Your task to perform on an android device: change notifications settings Image 0: 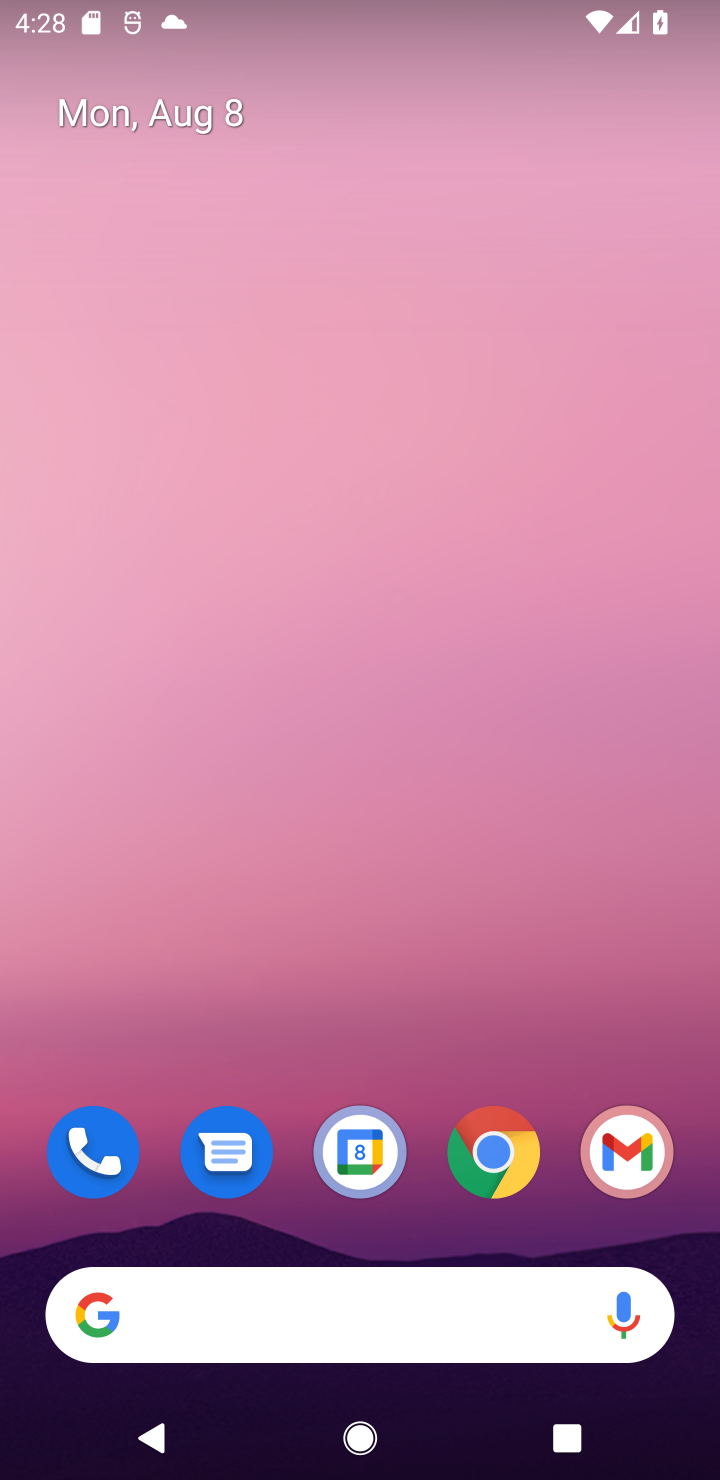
Step 0: drag from (295, 1121) to (323, 76)
Your task to perform on an android device: change notifications settings Image 1: 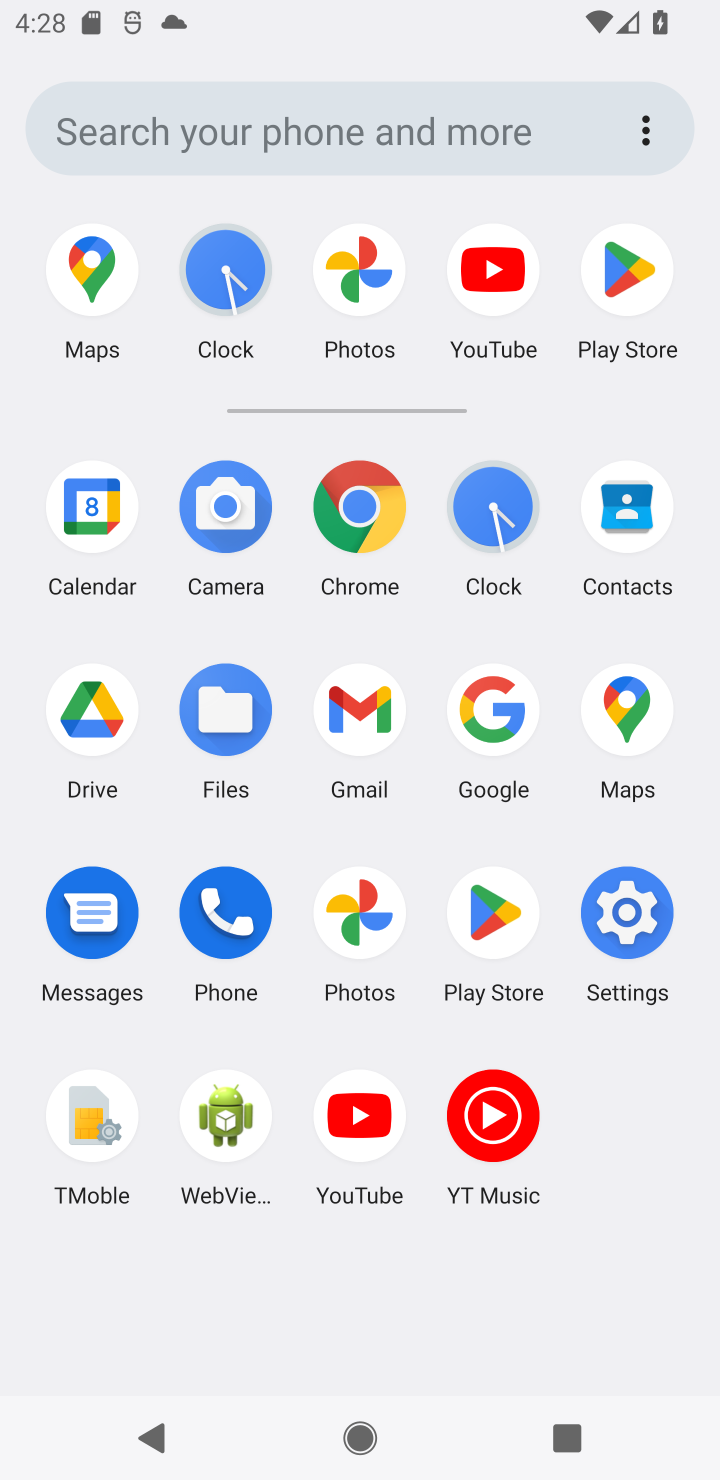
Step 1: click (628, 912)
Your task to perform on an android device: change notifications settings Image 2: 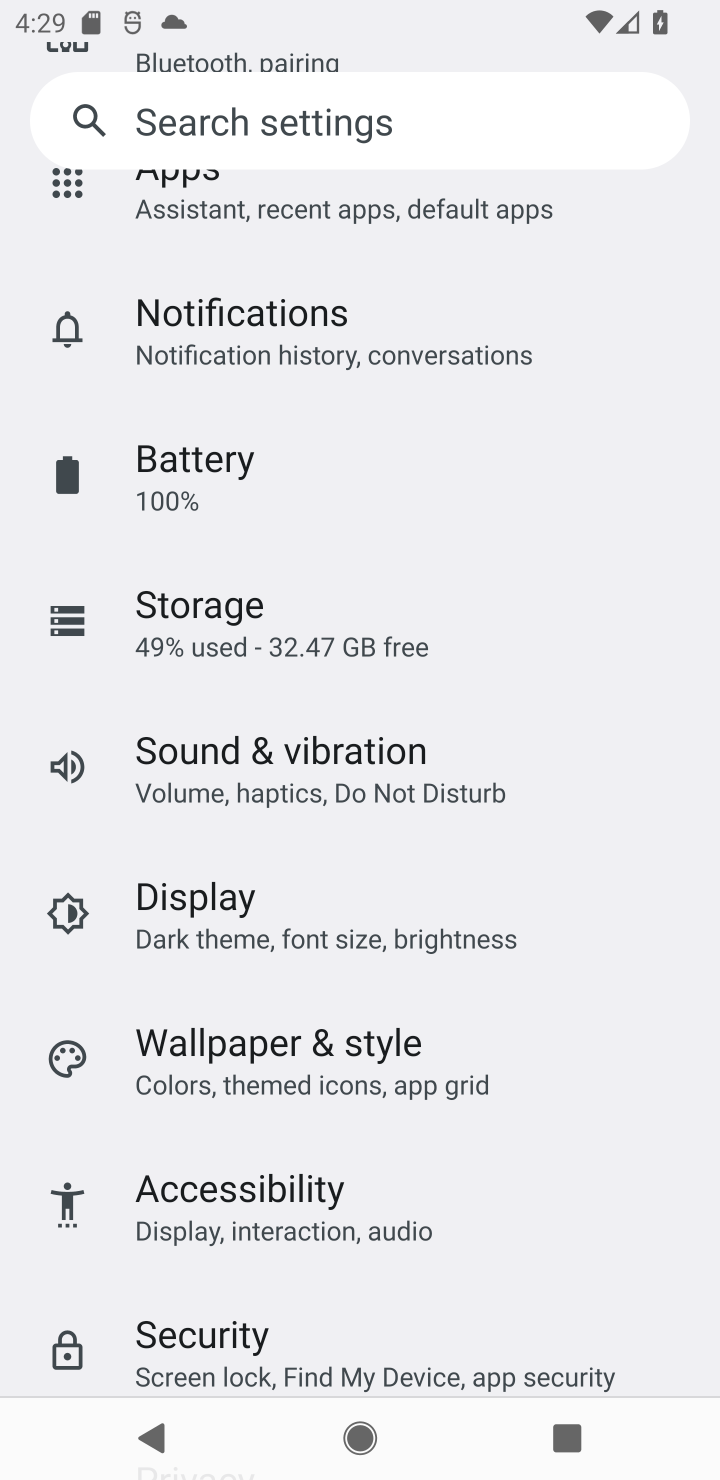
Step 2: drag from (522, 464) to (421, 1203)
Your task to perform on an android device: change notifications settings Image 3: 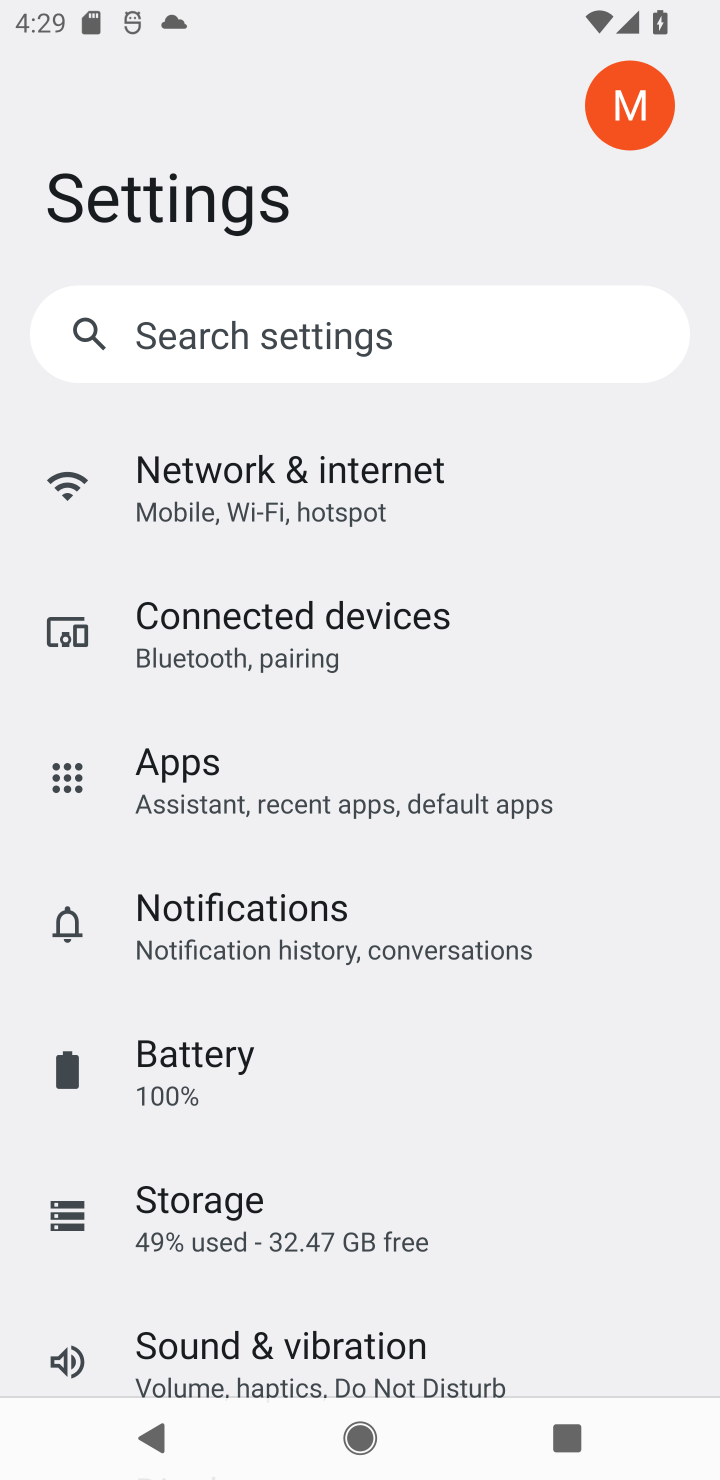
Step 3: click (273, 930)
Your task to perform on an android device: change notifications settings Image 4: 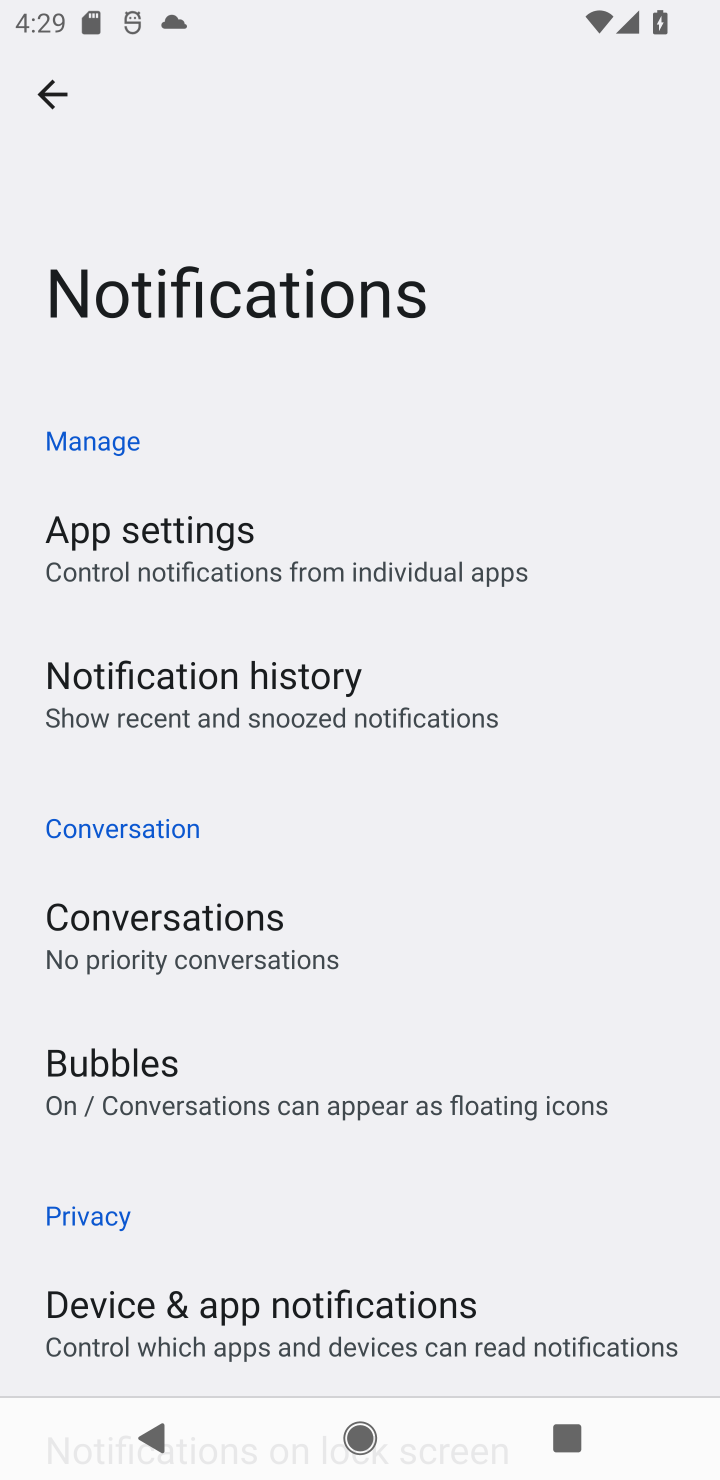
Step 4: drag from (380, 1308) to (596, 183)
Your task to perform on an android device: change notifications settings Image 5: 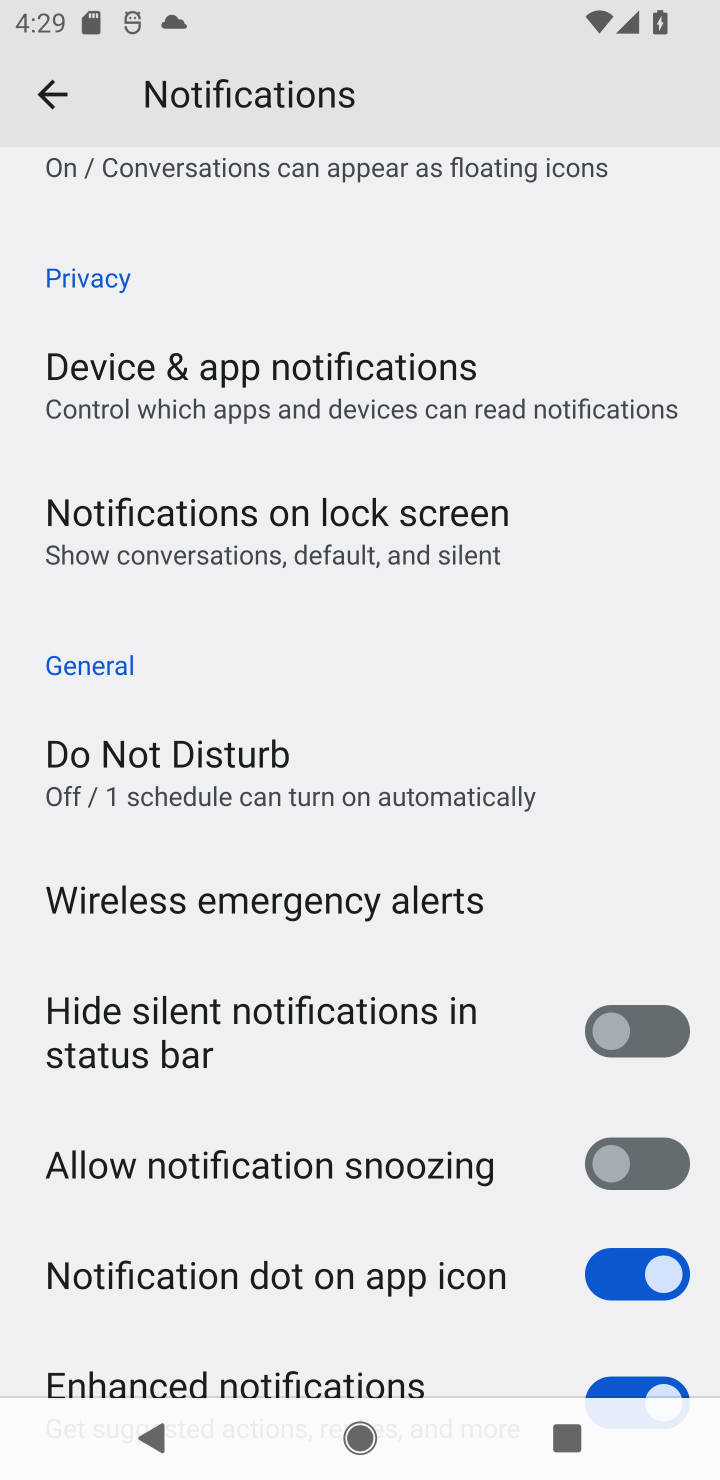
Step 5: click (641, 1184)
Your task to perform on an android device: change notifications settings Image 6: 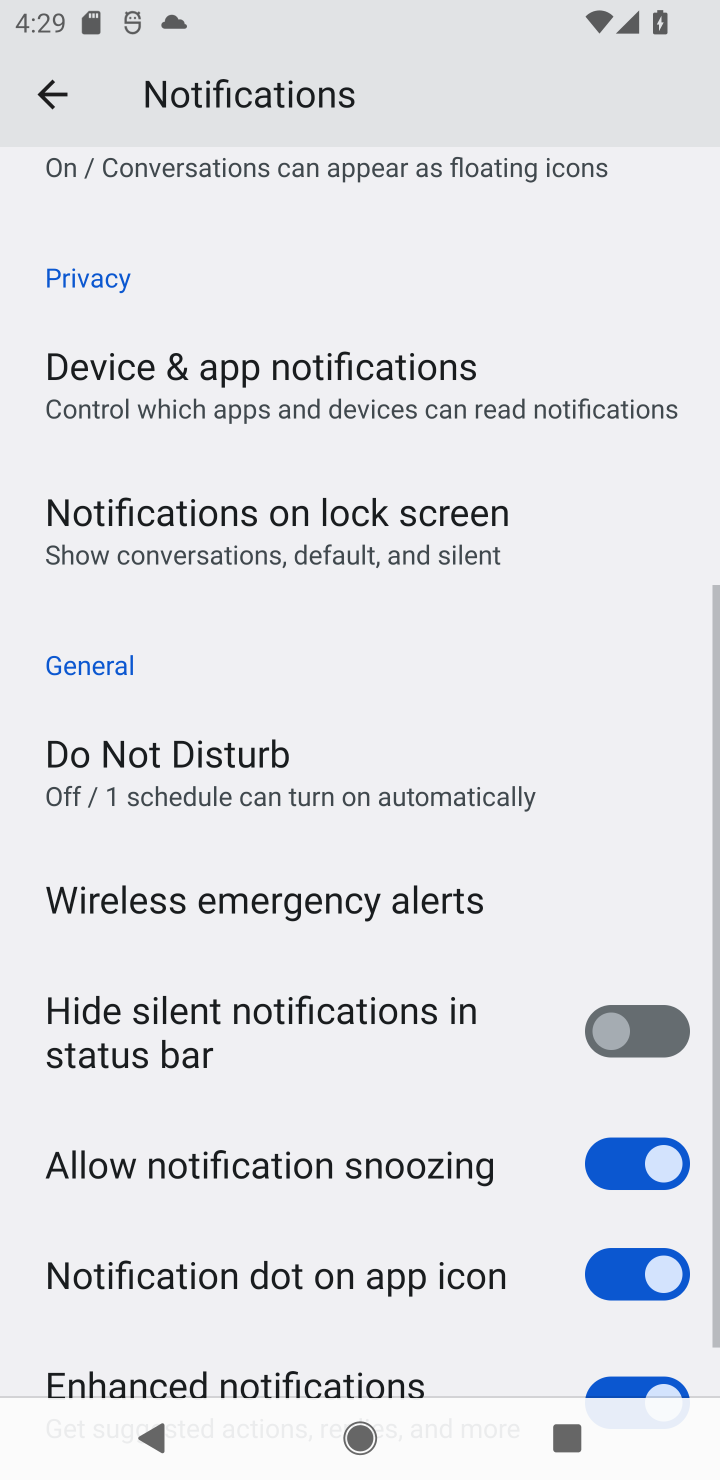
Step 6: task complete